Your task to perform on an android device: Open Maps and search for coffee Image 0: 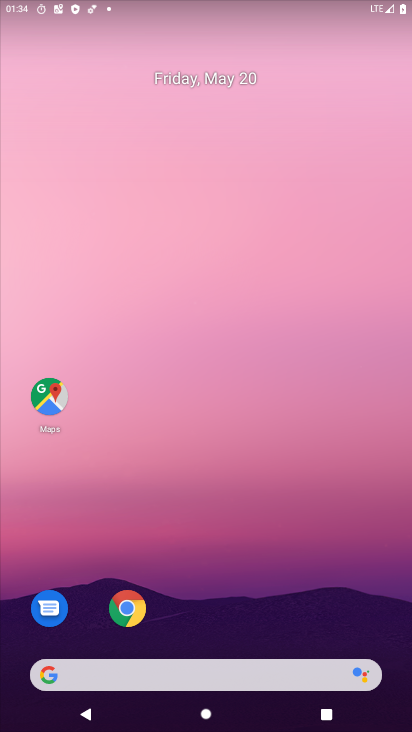
Step 0: drag from (347, 613) to (345, 211)
Your task to perform on an android device: Open Maps and search for coffee Image 1: 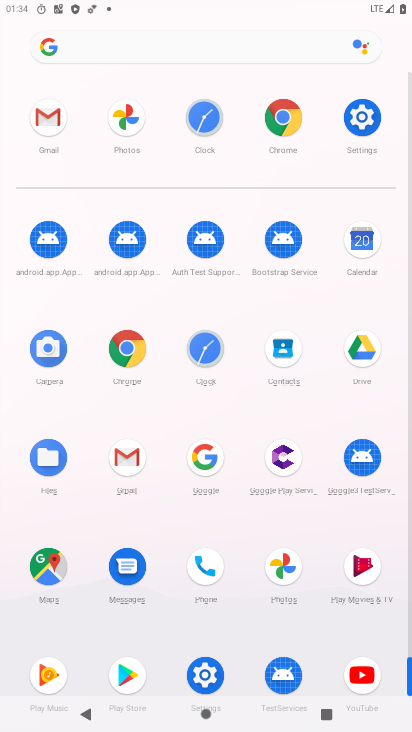
Step 1: click (48, 569)
Your task to perform on an android device: Open Maps and search for coffee Image 2: 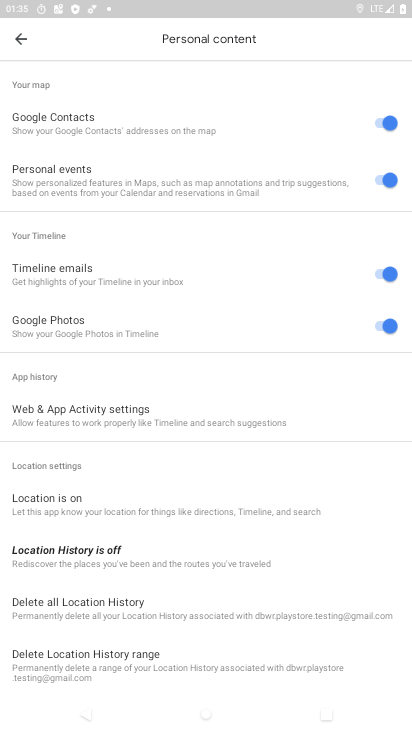
Step 2: click (24, 33)
Your task to perform on an android device: Open Maps and search for coffee Image 3: 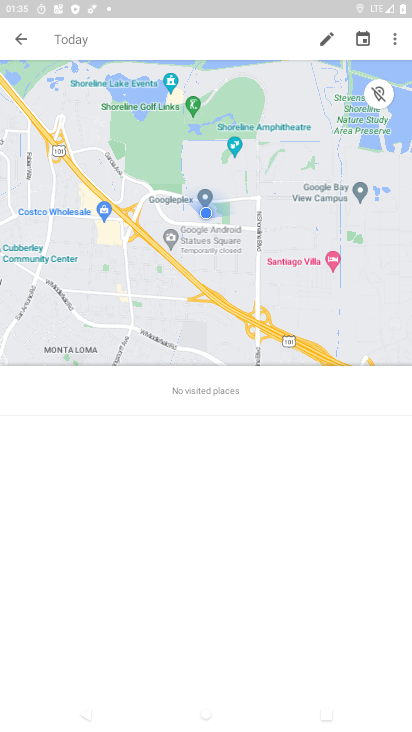
Step 3: click (30, 38)
Your task to perform on an android device: Open Maps and search for coffee Image 4: 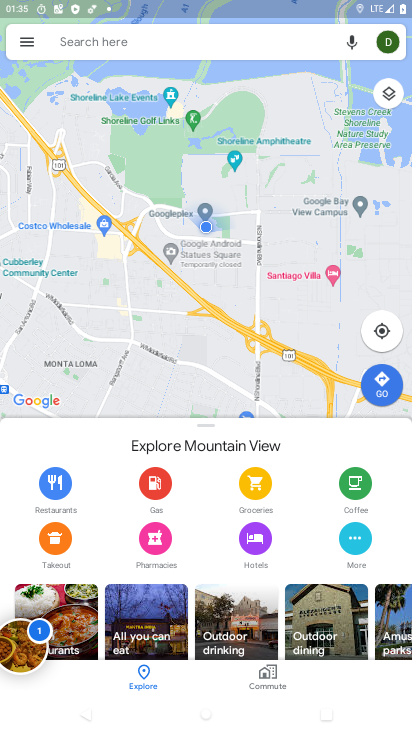
Step 4: click (118, 38)
Your task to perform on an android device: Open Maps and search for coffee Image 5: 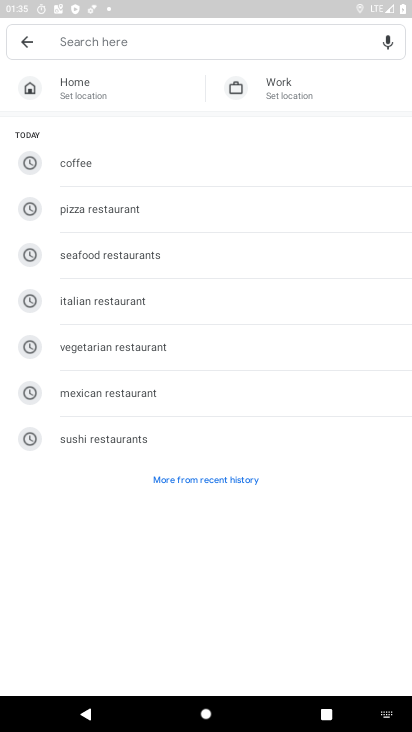
Step 5: click (130, 156)
Your task to perform on an android device: Open Maps and search for coffee Image 6: 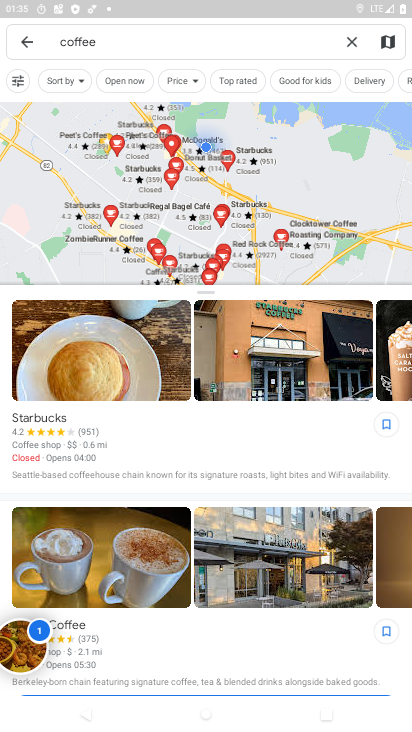
Step 6: task complete